Your task to perform on an android device: Go to internet settings Image 0: 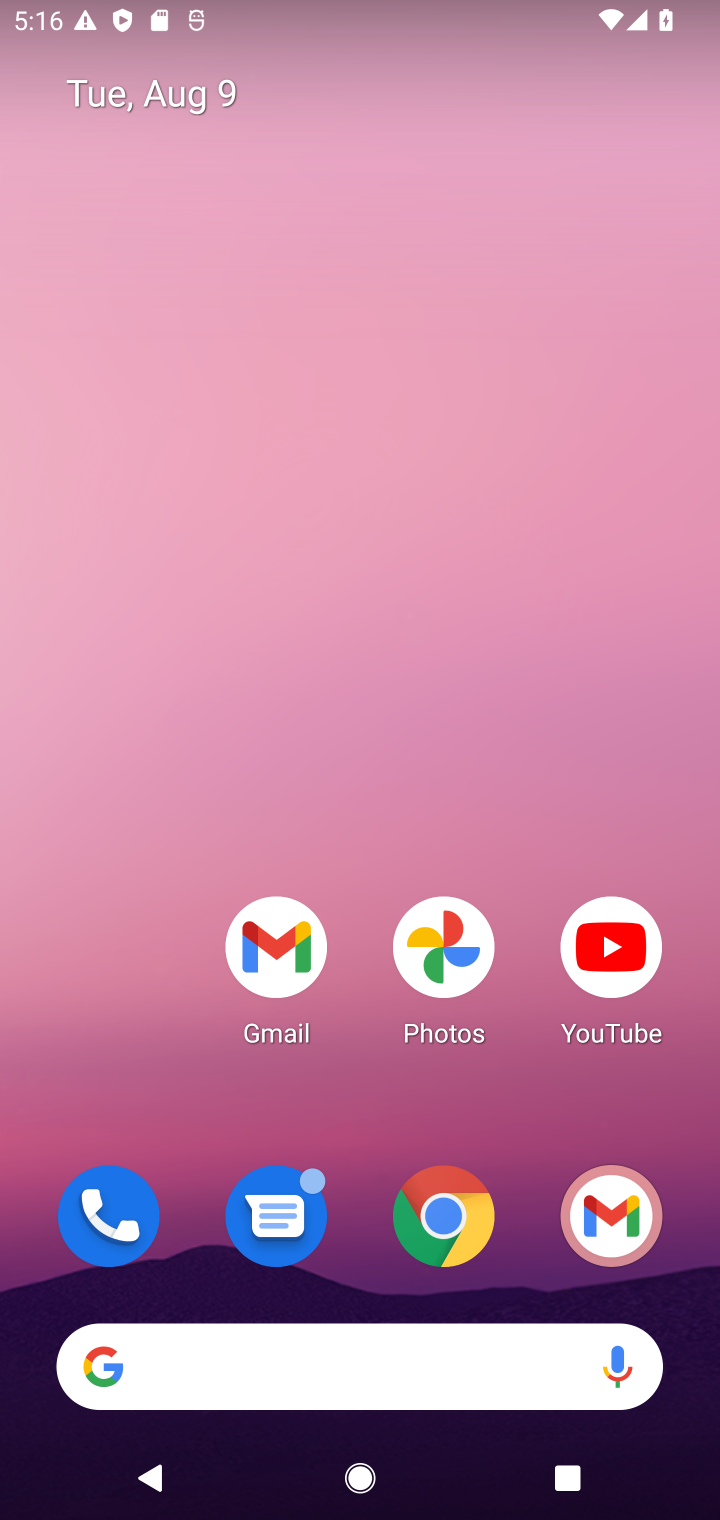
Step 0: drag from (362, 1235) to (317, 376)
Your task to perform on an android device: Go to internet settings Image 1: 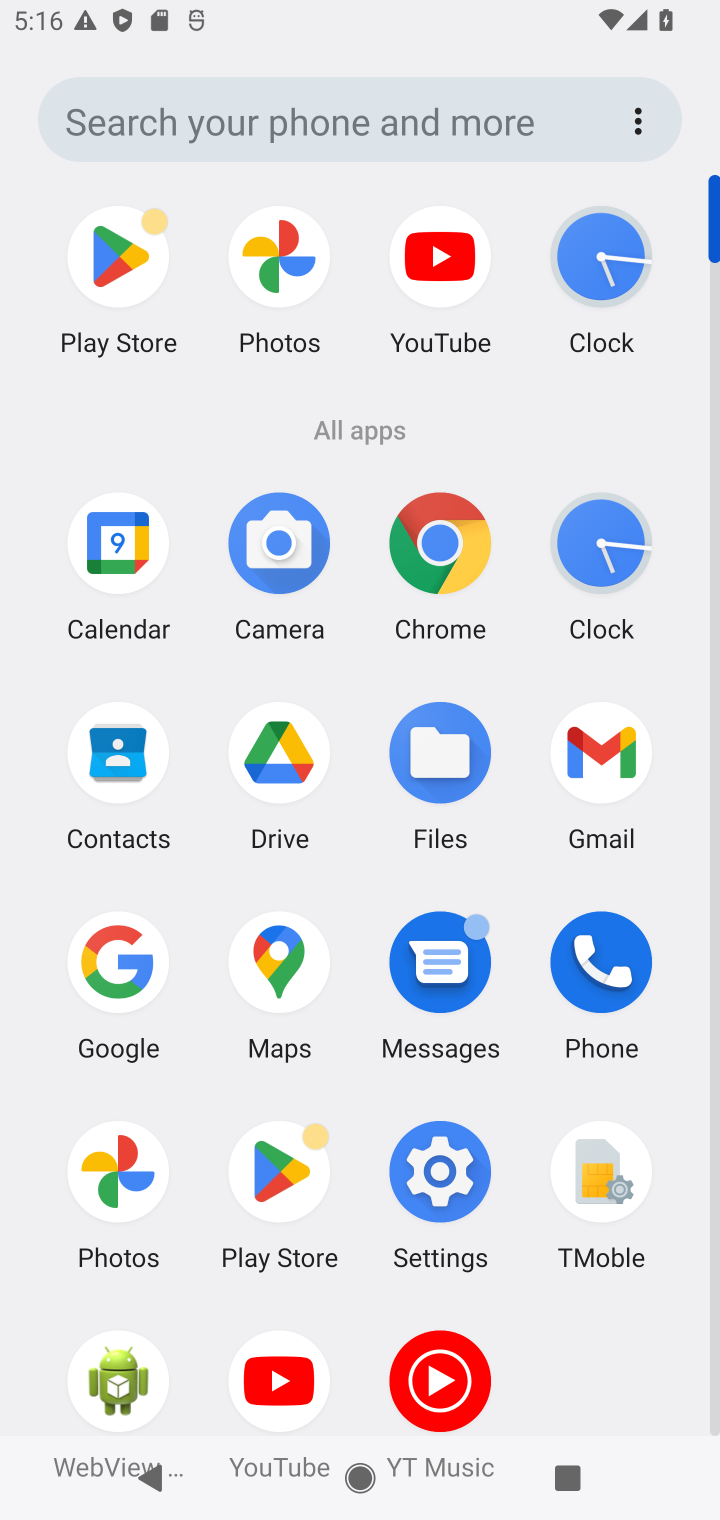
Step 1: click (443, 1177)
Your task to perform on an android device: Go to internet settings Image 2: 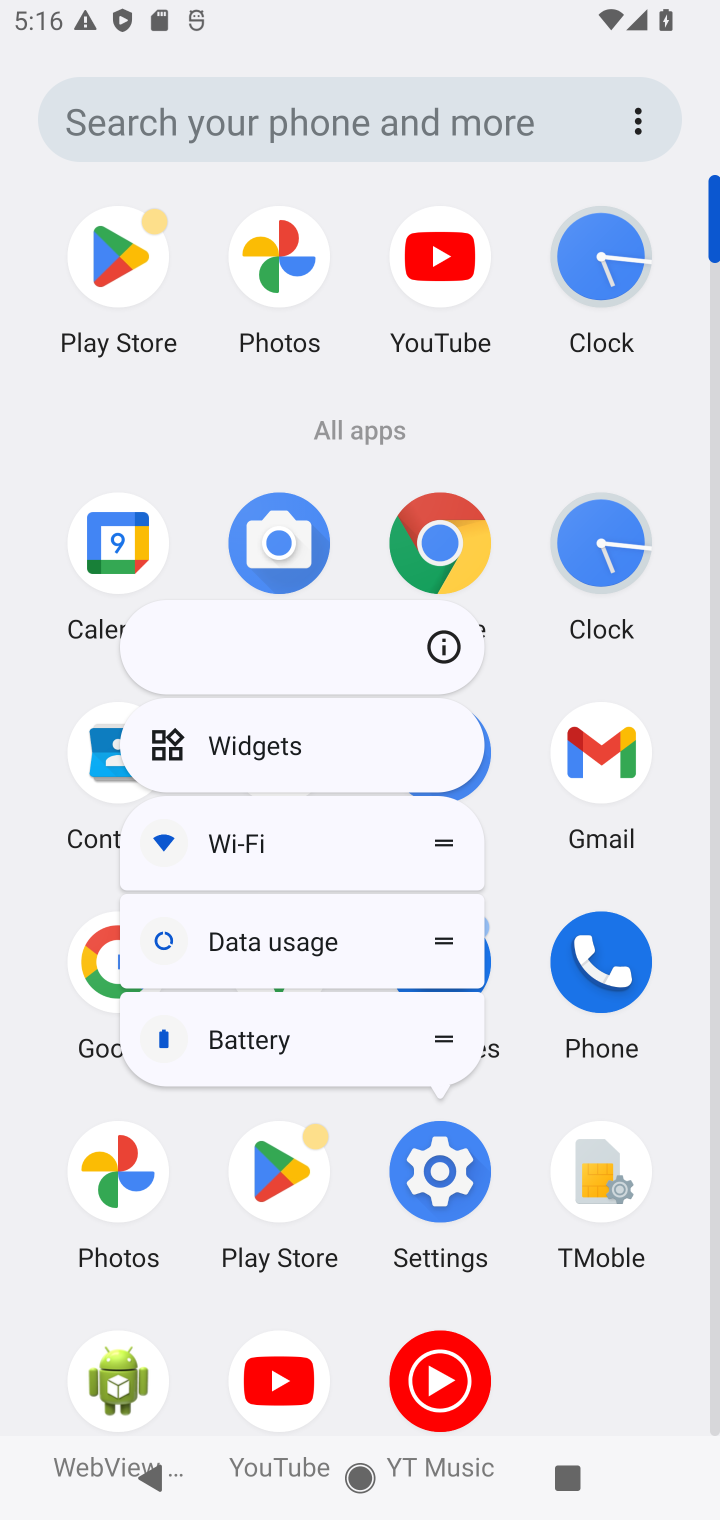
Step 2: click (435, 1174)
Your task to perform on an android device: Go to internet settings Image 3: 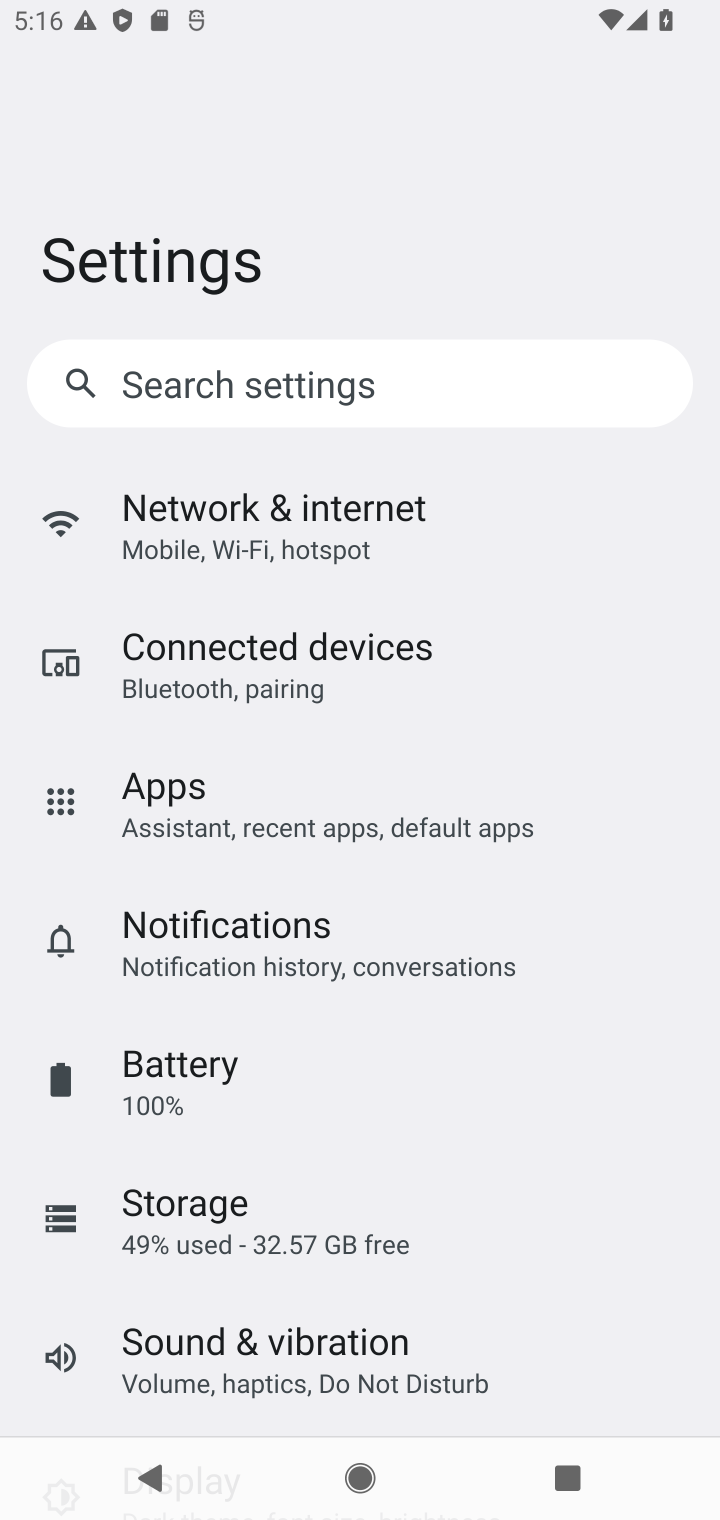
Step 3: click (536, 1187)
Your task to perform on an android device: Go to internet settings Image 4: 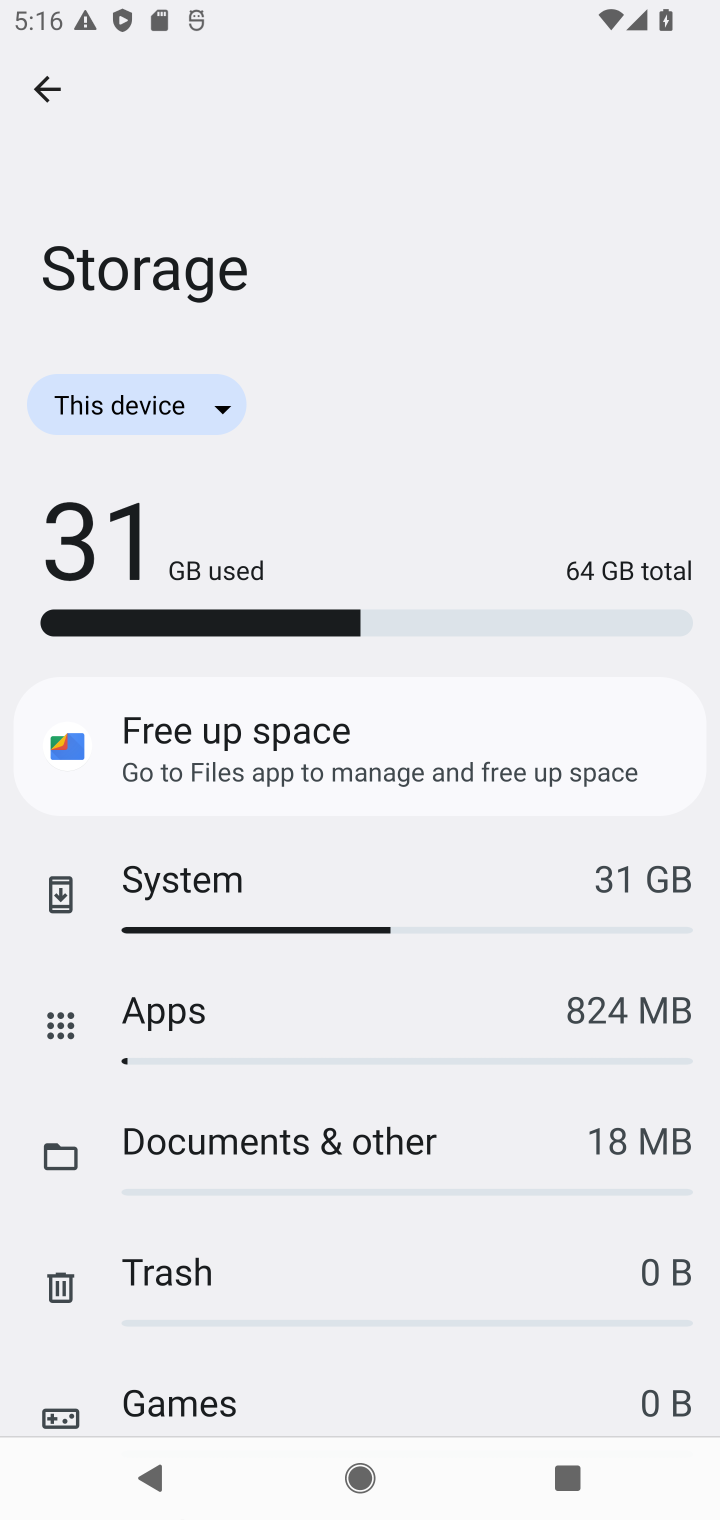
Step 4: drag from (209, 1366) to (229, 778)
Your task to perform on an android device: Go to internet settings Image 5: 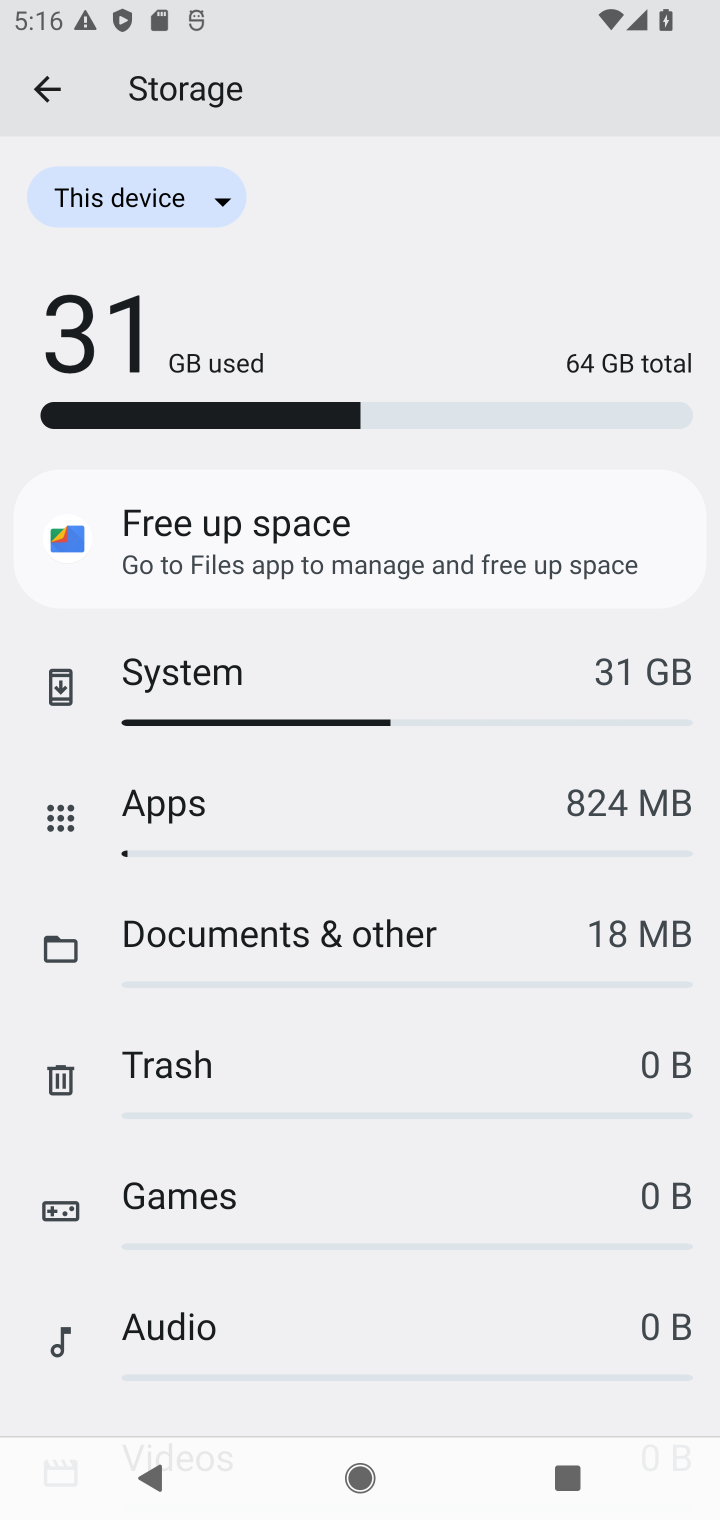
Step 5: click (35, 109)
Your task to perform on an android device: Go to internet settings Image 6: 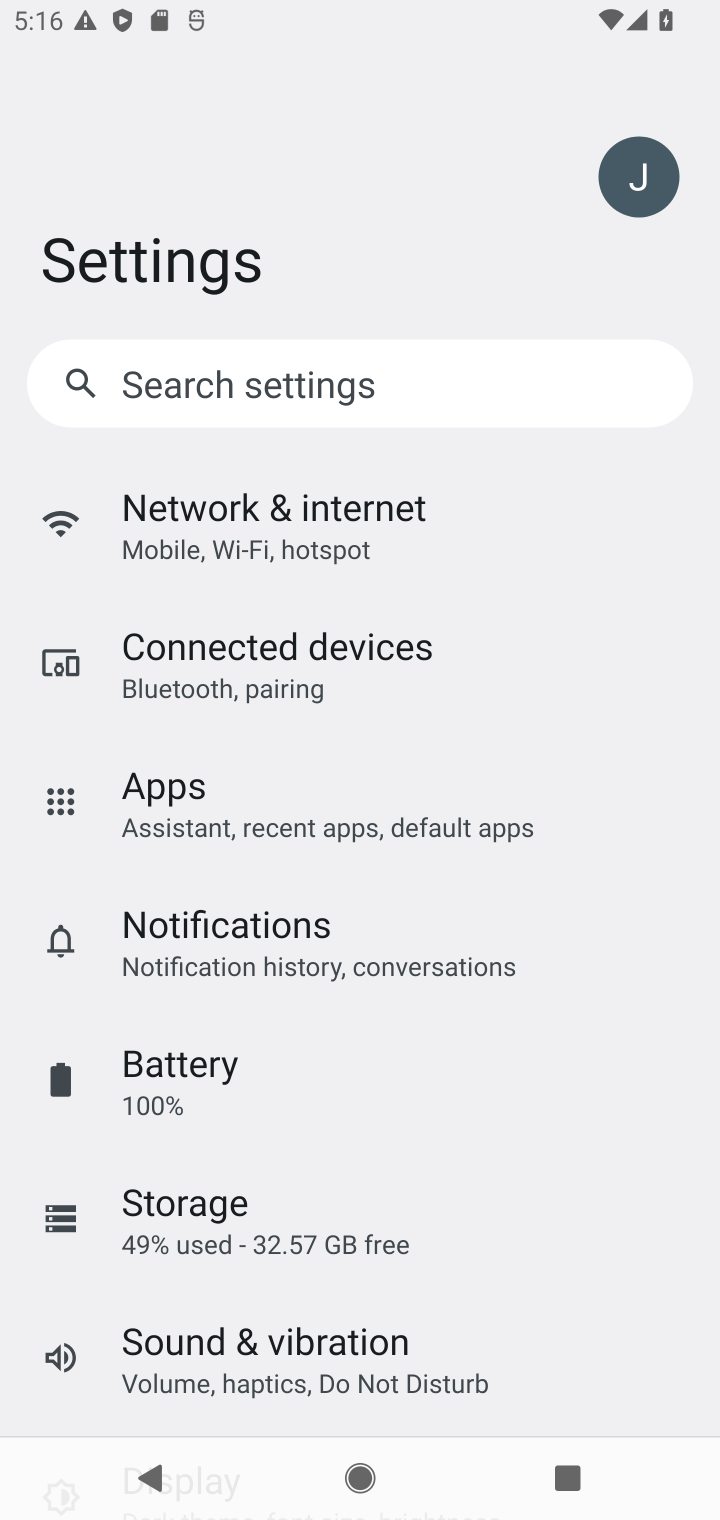
Step 6: click (224, 527)
Your task to perform on an android device: Go to internet settings Image 7: 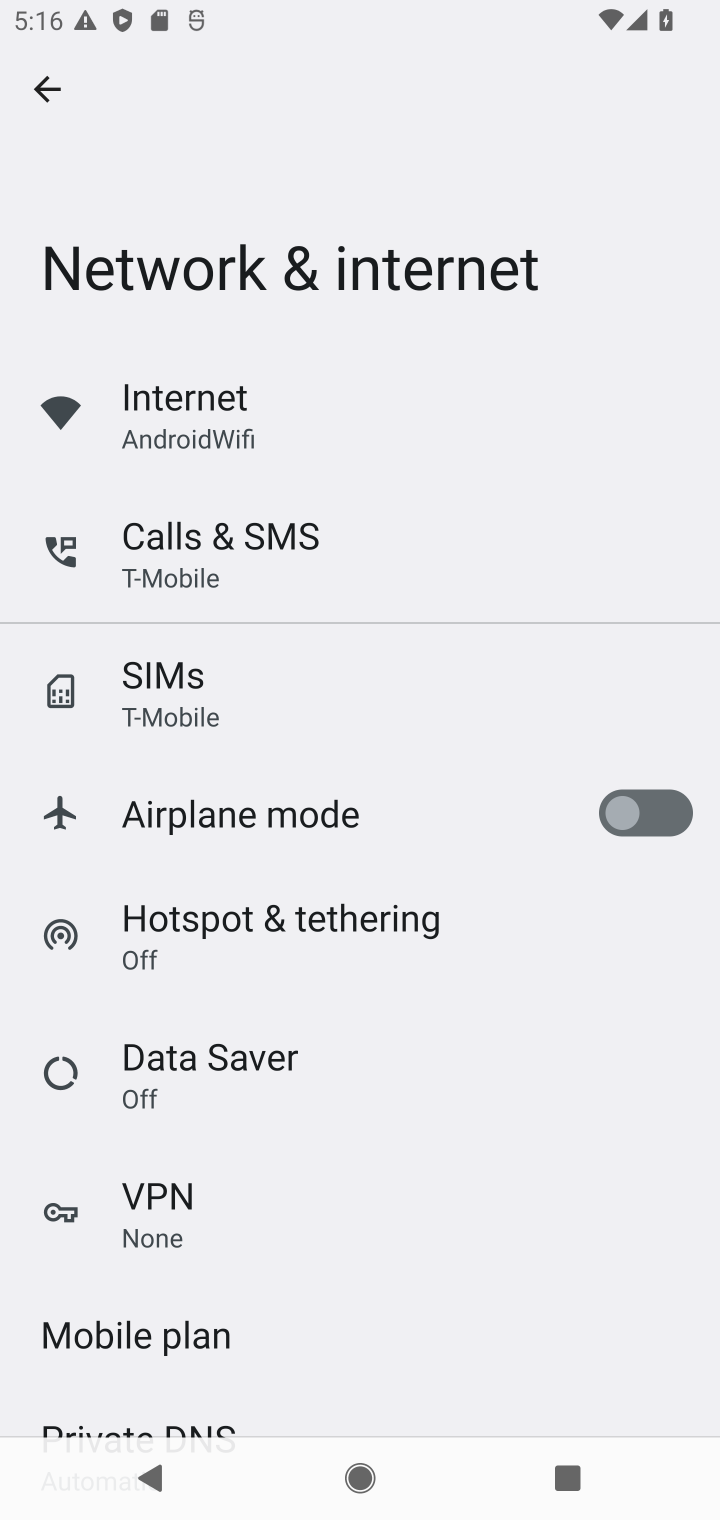
Step 7: task complete